Your task to perform on an android device: turn off airplane mode Image 0: 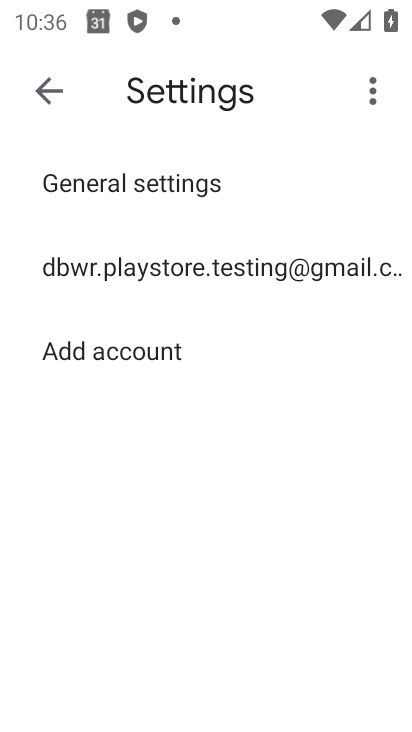
Step 0: press back button
Your task to perform on an android device: turn off airplane mode Image 1: 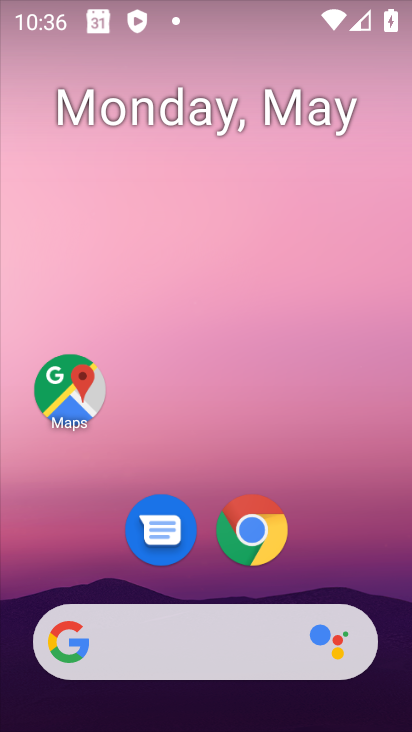
Step 1: drag from (336, 544) to (252, 45)
Your task to perform on an android device: turn off airplane mode Image 2: 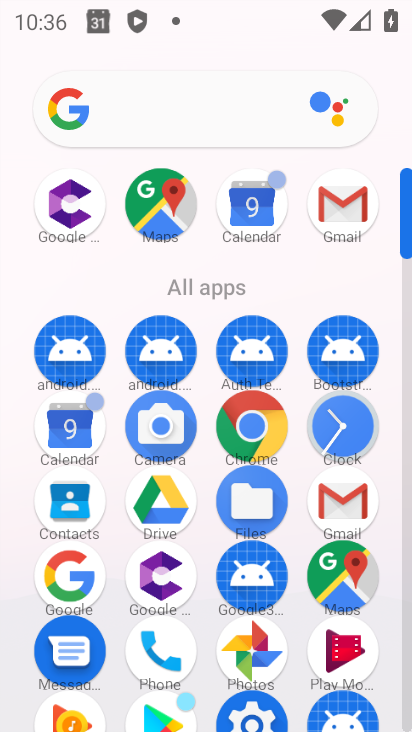
Step 2: drag from (204, 524) to (208, 277)
Your task to perform on an android device: turn off airplane mode Image 3: 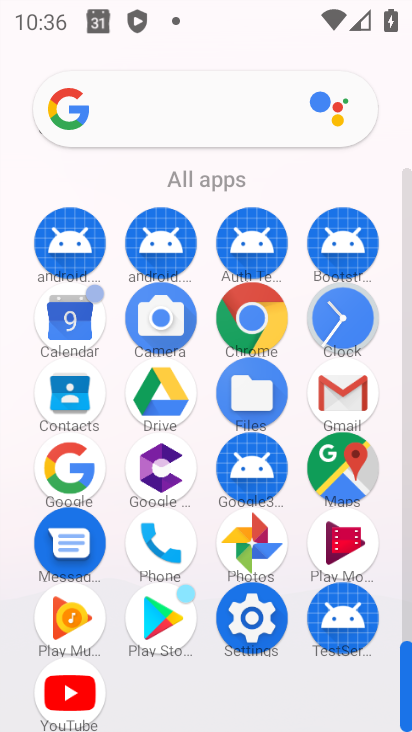
Step 3: click (256, 614)
Your task to perform on an android device: turn off airplane mode Image 4: 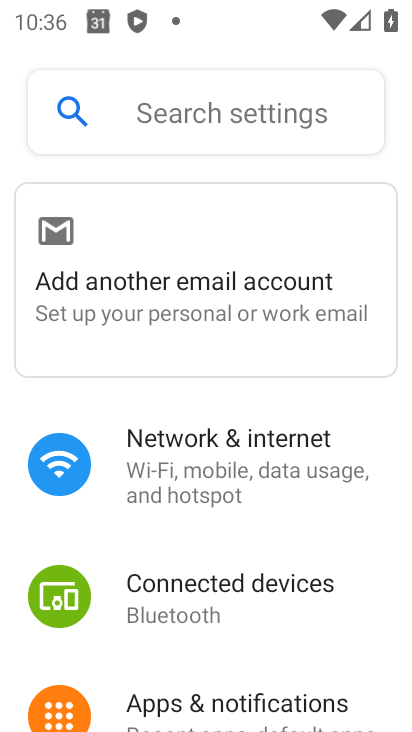
Step 4: click (243, 442)
Your task to perform on an android device: turn off airplane mode Image 5: 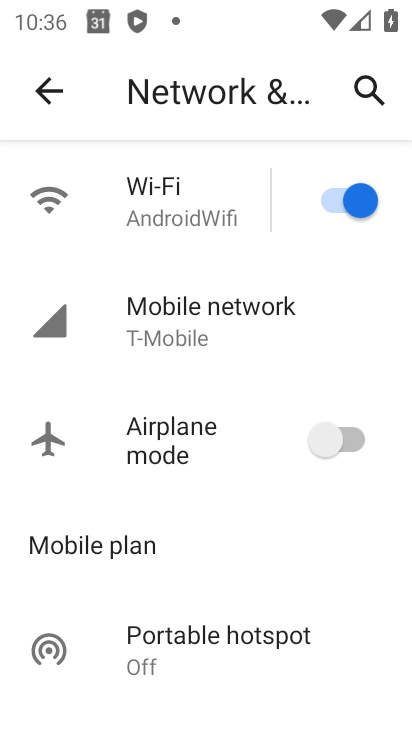
Step 5: task complete